Your task to perform on an android device: Open the calendar app, open the side menu, and click the "Day" option Image 0: 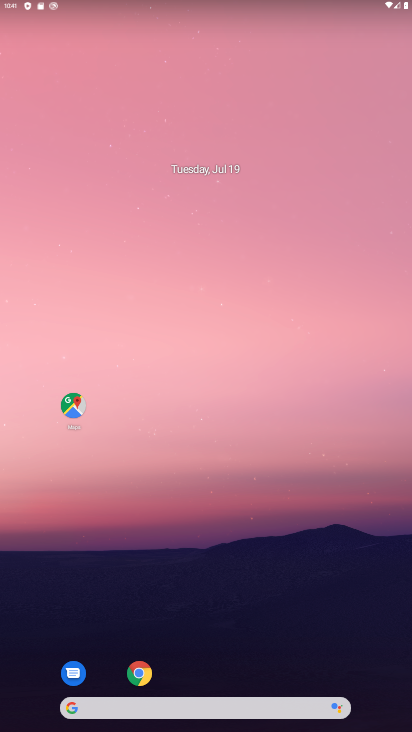
Step 0: drag from (207, 662) to (282, 84)
Your task to perform on an android device: Open the calendar app, open the side menu, and click the "Day" option Image 1: 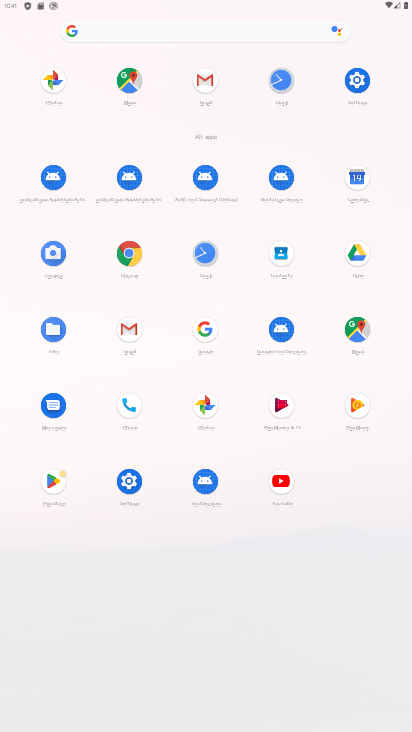
Step 1: click (356, 181)
Your task to perform on an android device: Open the calendar app, open the side menu, and click the "Day" option Image 2: 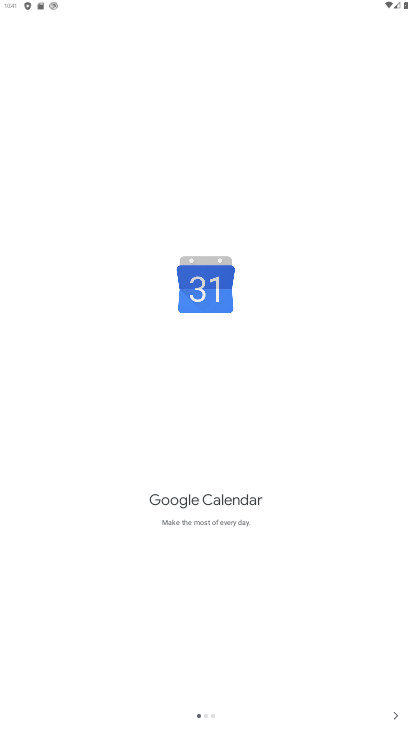
Step 2: click (396, 716)
Your task to perform on an android device: Open the calendar app, open the side menu, and click the "Day" option Image 3: 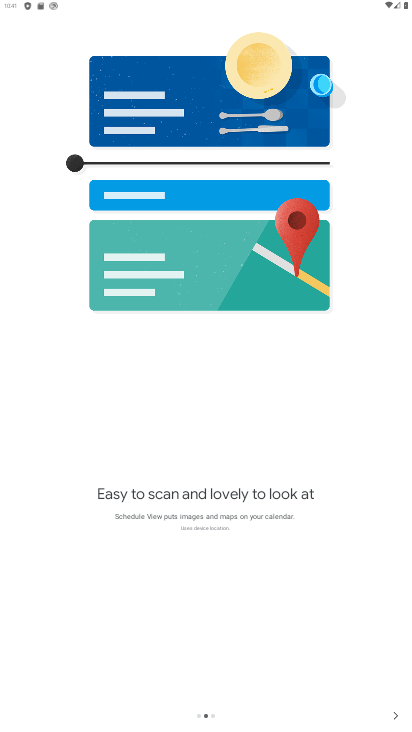
Step 3: click (396, 716)
Your task to perform on an android device: Open the calendar app, open the side menu, and click the "Day" option Image 4: 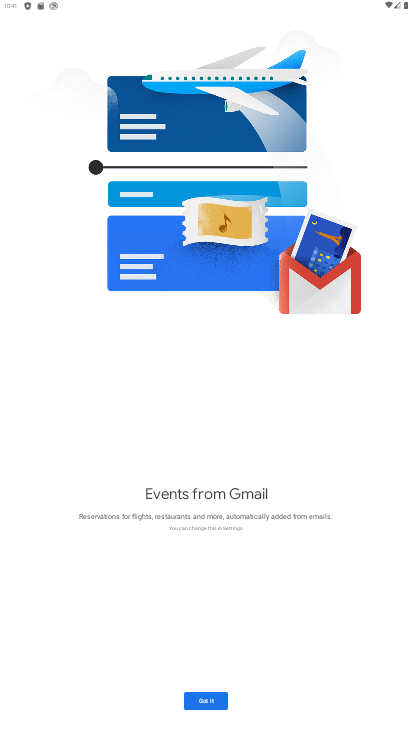
Step 4: click (215, 696)
Your task to perform on an android device: Open the calendar app, open the side menu, and click the "Day" option Image 5: 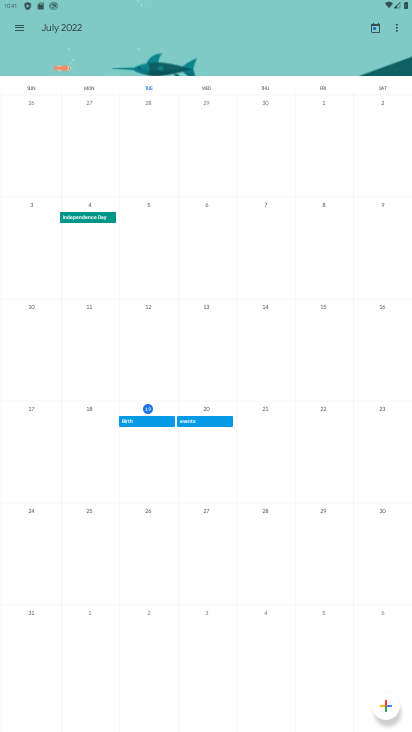
Step 5: click (24, 26)
Your task to perform on an android device: Open the calendar app, open the side menu, and click the "Day" option Image 6: 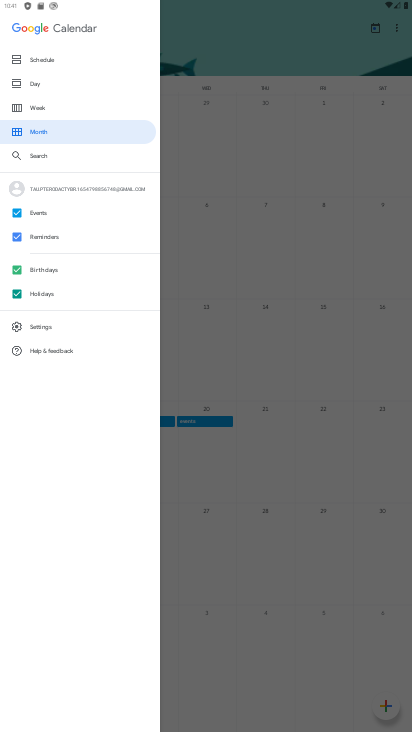
Step 6: click (40, 82)
Your task to perform on an android device: Open the calendar app, open the side menu, and click the "Day" option Image 7: 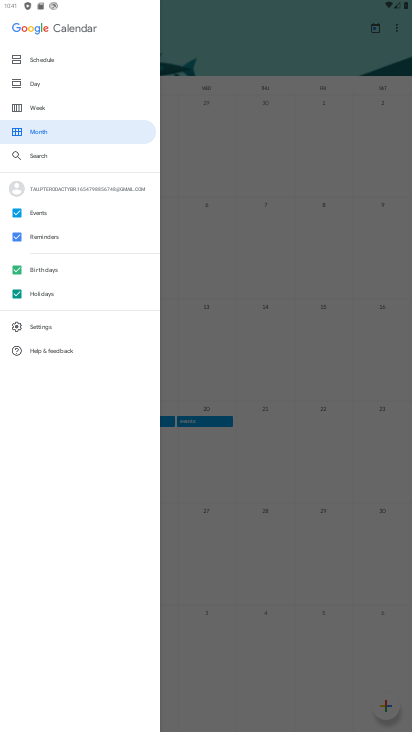
Step 7: click (24, 83)
Your task to perform on an android device: Open the calendar app, open the side menu, and click the "Day" option Image 8: 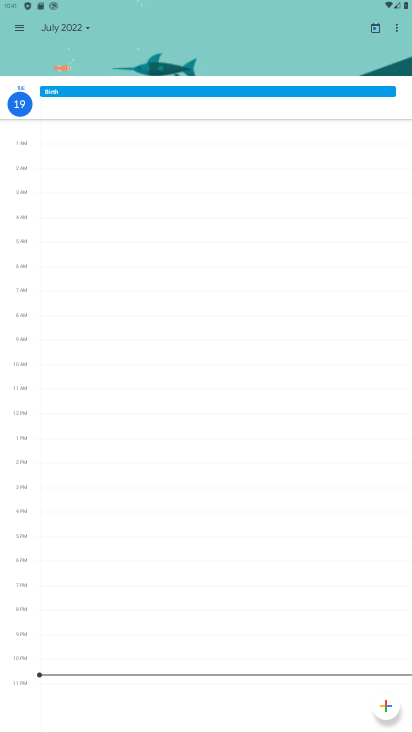
Step 8: task complete